Your task to perform on an android device: Go to privacy settings Image 0: 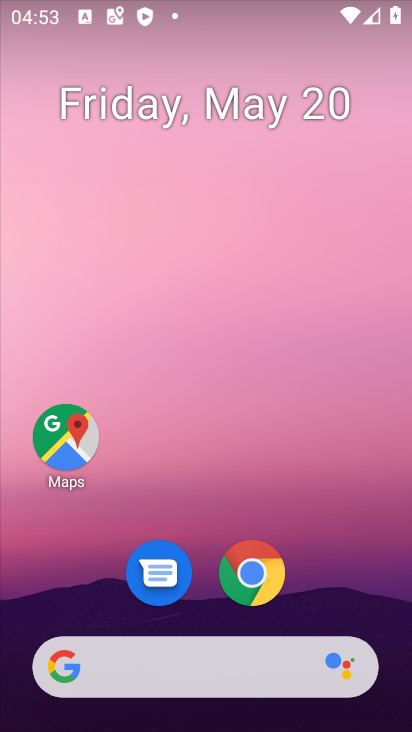
Step 0: drag from (389, 626) to (333, 9)
Your task to perform on an android device: Go to privacy settings Image 1: 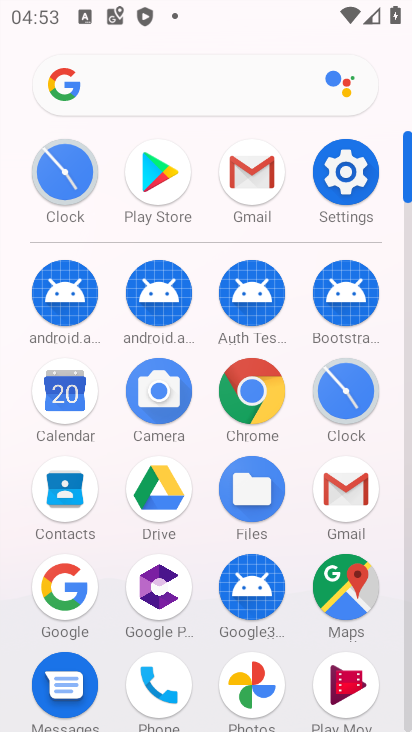
Step 1: click (411, 699)
Your task to perform on an android device: Go to privacy settings Image 2: 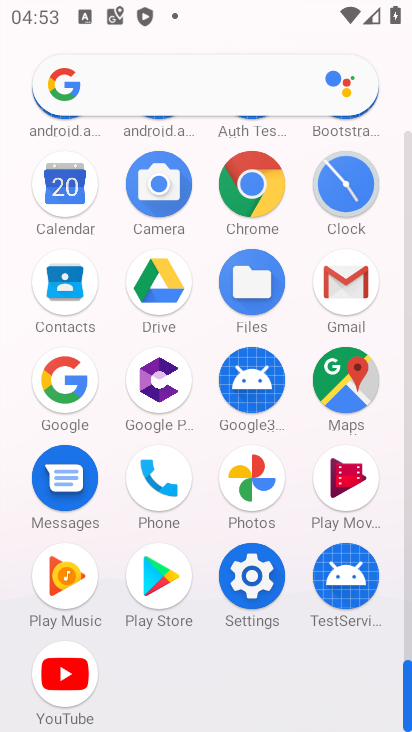
Step 2: click (250, 574)
Your task to perform on an android device: Go to privacy settings Image 3: 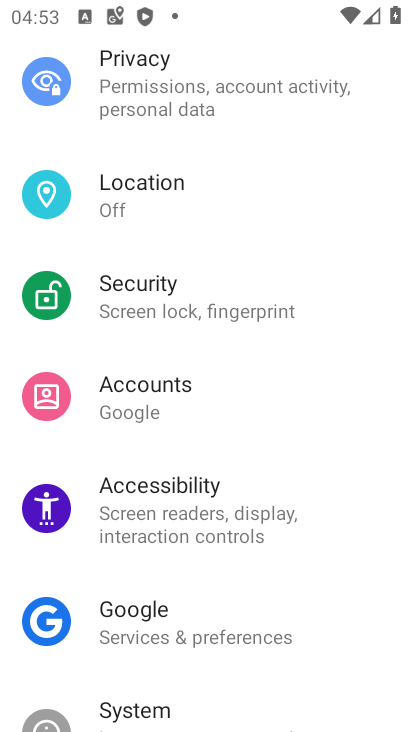
Step 3: click (146, 87)
Your task to perform on an android device: Go to privacy settings Image 4: 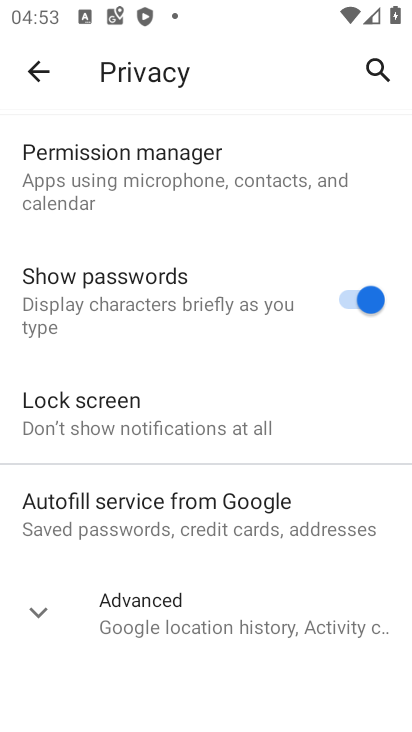
Step 4: click (37, 611)
Your task to perform on an android device: Go to privacy settings Image 5: 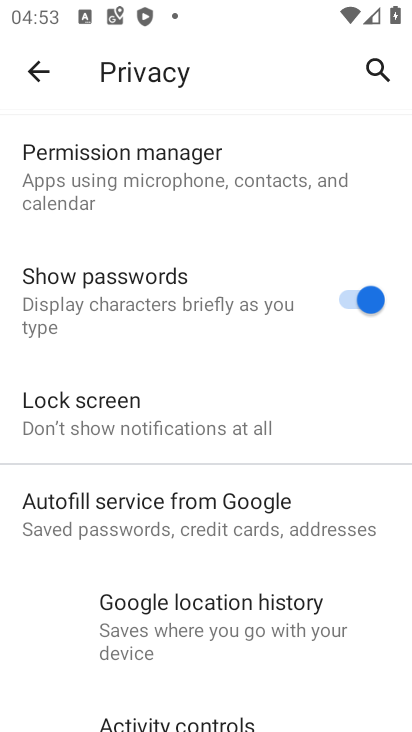
Step 5: task complete